Your task to perform on an android device: toggle location history Image 0: 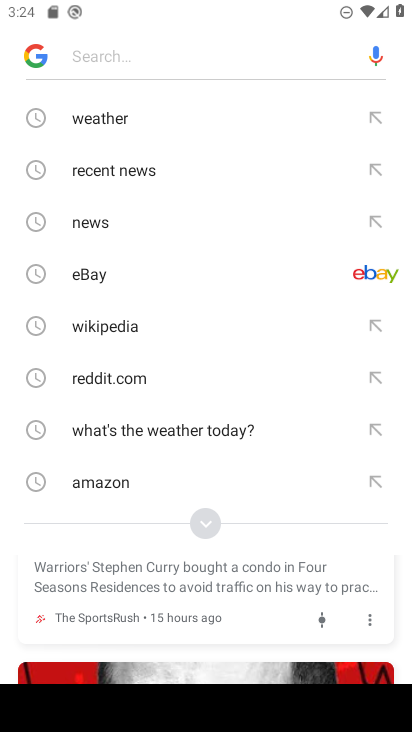
Step 0: press home button
Your task to perform on an android device: toggle location history Image 1: 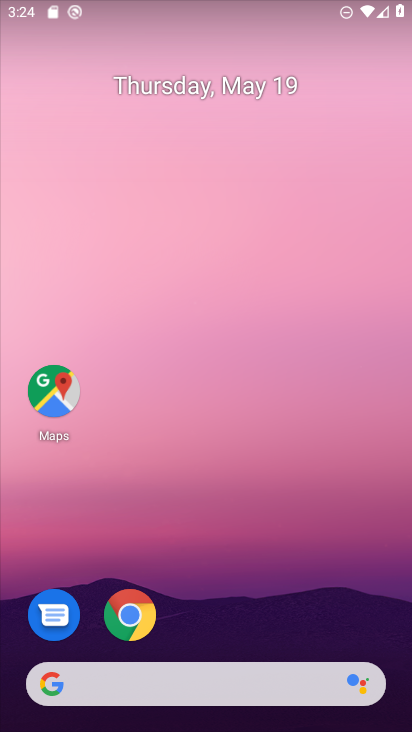
Step 1: drag from (257, 535) to (265, 371)
Your task to perform on an android device: toggle location history Image 2: 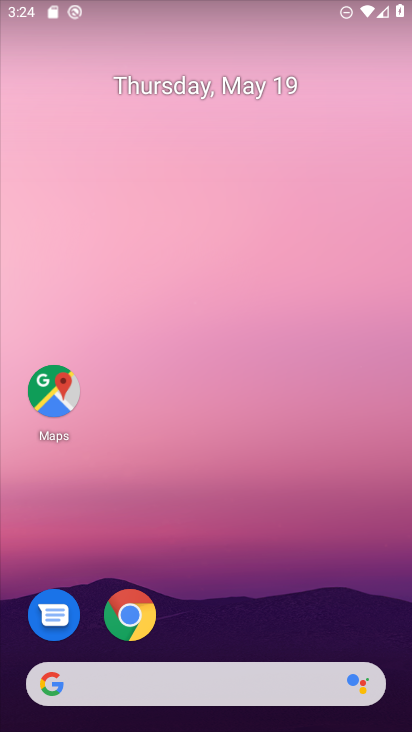
Step 2: drag from (195, 458) to (200, 198)
Your task to perform on an android device: toggle location history Image 3: 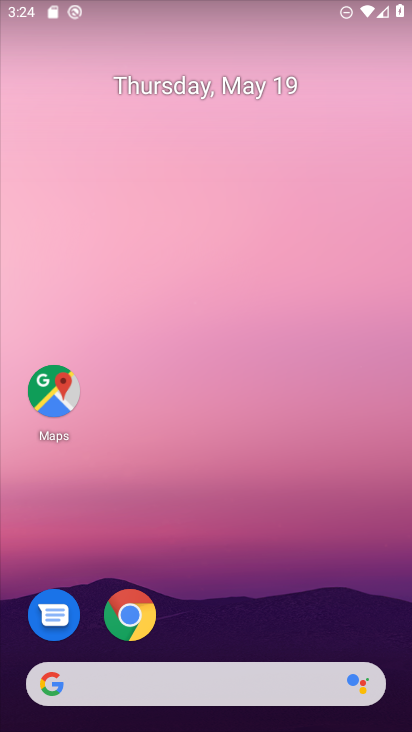
Step 3: drag from (238, 593) to (282, 203)
Your task to perform on an android device: toggle location history Image 4: 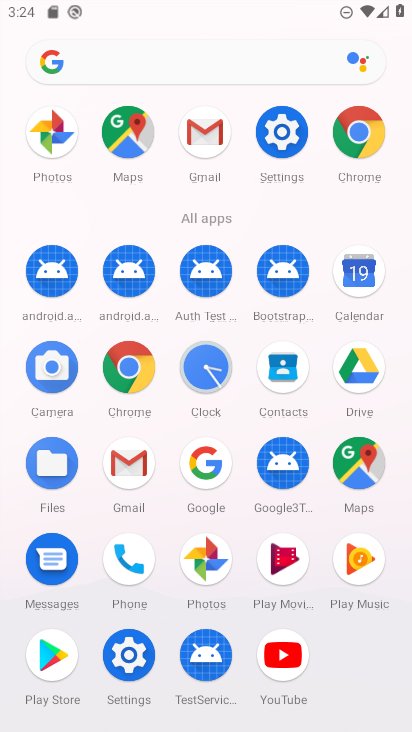
Step 4: click (281, 131)
Your task to perform on an android device: toggle location history Image 5: 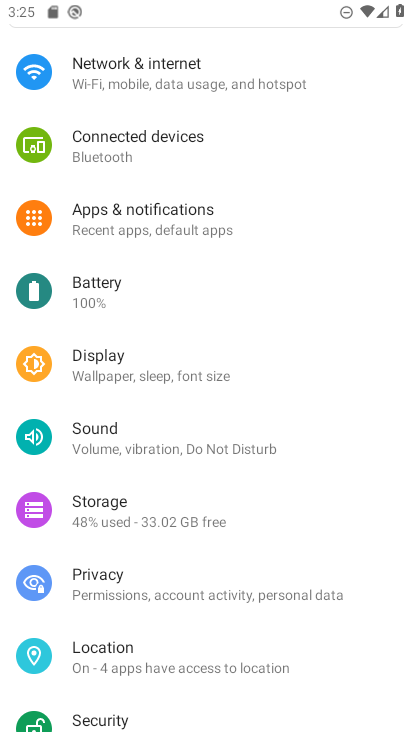
Step 5: click (134, 653)
Your task to perform on an android device: toggle location history Image 6: 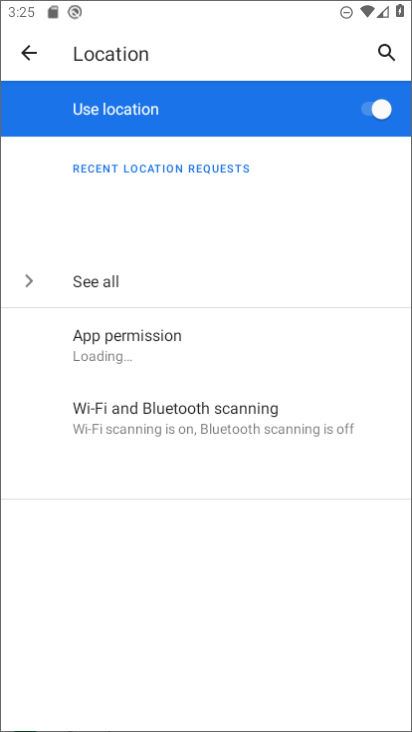
Step 6: click (134, 653)
Your task to perform on an android device: toggle location history Image 7: 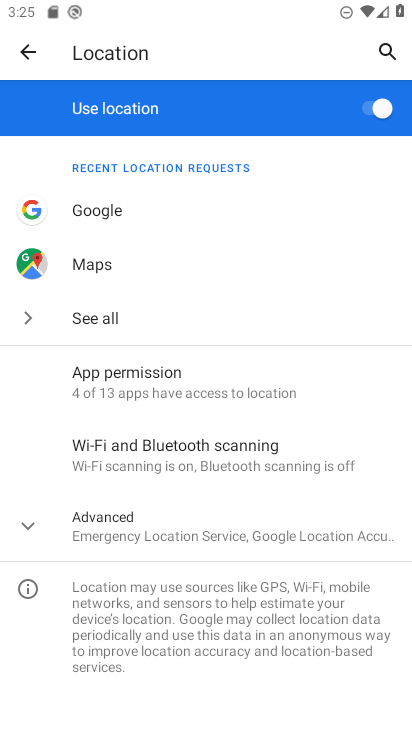
Step 7: click (161, 520)
Your task to perform on an android device: toggle location history Image 8: 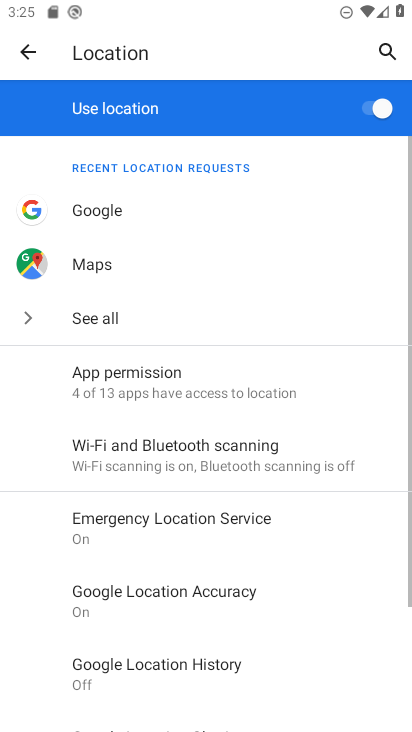
Step 8: drag from (201, 641) to (214, 573)
Your task to perform on an android device: toggle location history Image 9: 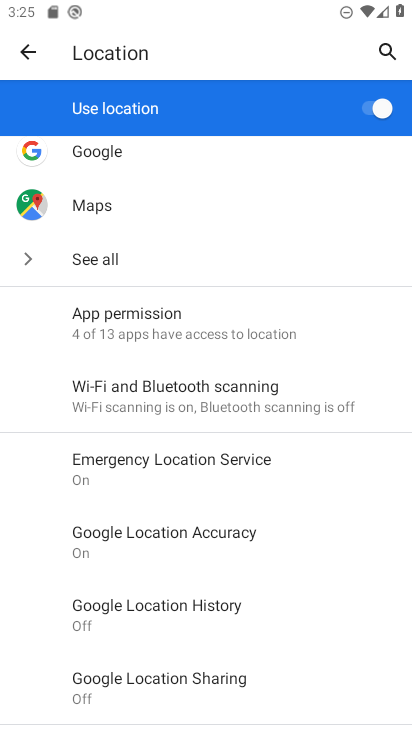
Step 9: click (201, 605)
Your task to perform on an android device: toggle location history Image 10: 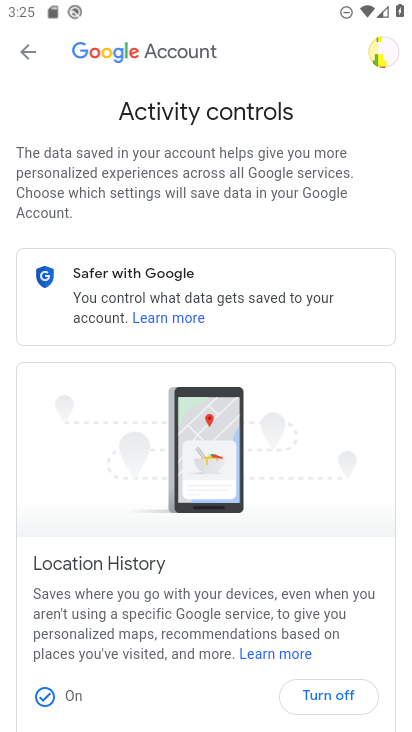
Step 10: drag from (259, 545) to (278, 342)
Your task to perform on an android device: toggle location history Image 11: 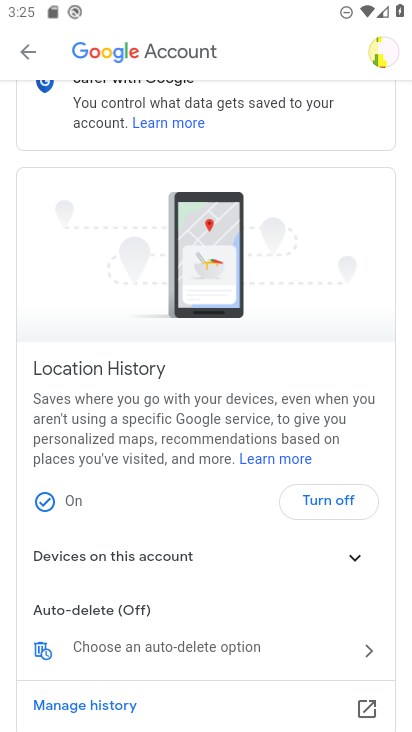
Step 11: click (317, 488)
Your task to perform on an android device: toggle location history Image 12: 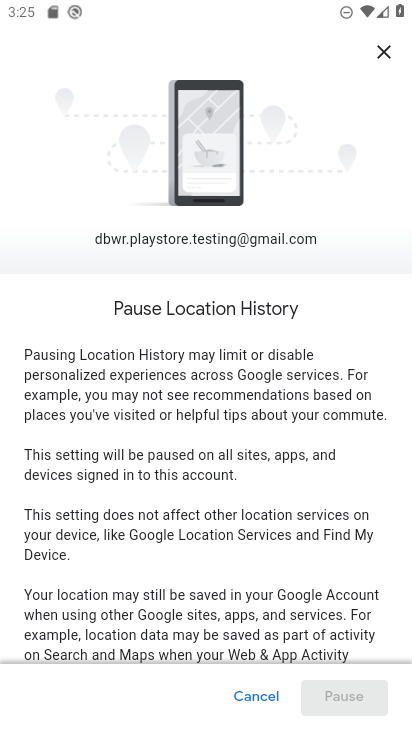
Step 12: task complete